Your task to perform on an android device: Search for seafood restaurants on Google Maps Image 0: 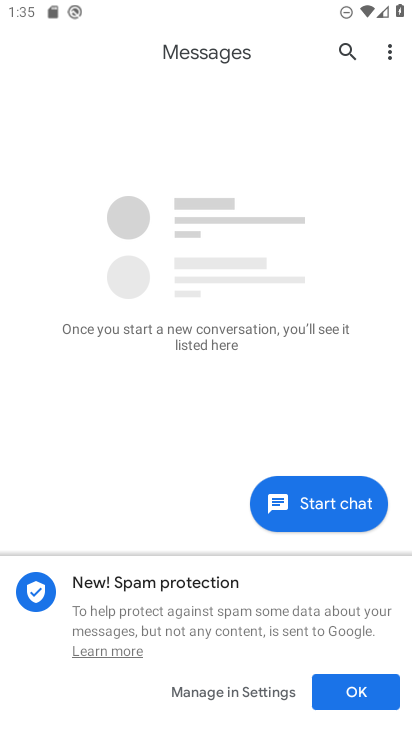
Step 0: press home button
Your task to perform on an android device: Search for seafood restaurants on Google Maps Image 1: 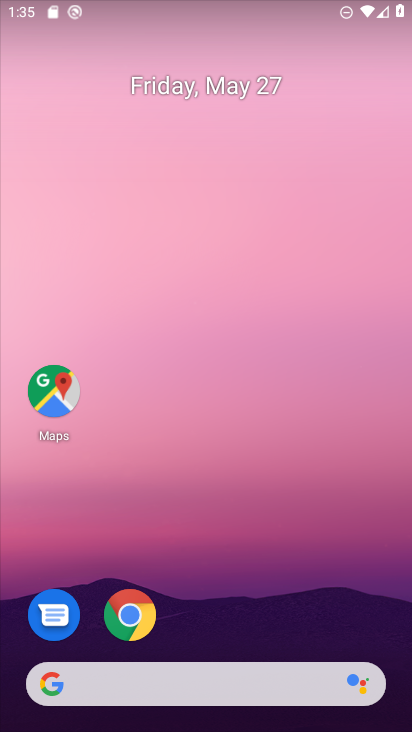
Step 1: drag from (250, 577) to (230, 128)
Your task to perform on an android device: Search for seafood restaurants on Google Maps Image 2: 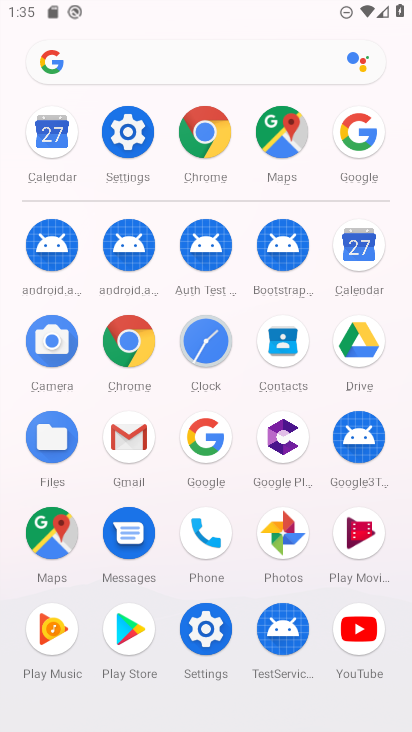
Step 2: click (52, 549)
Your task to perform on an android device: Search for seafood restaurants on Google Maps Image 3: 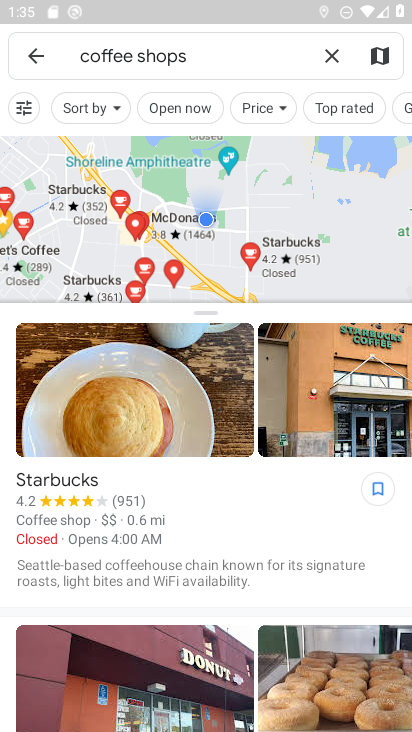
Step 3: click (324, 59)
Your task to perform on an android device: Search for seafood restaurants on Google Maps Image 4: 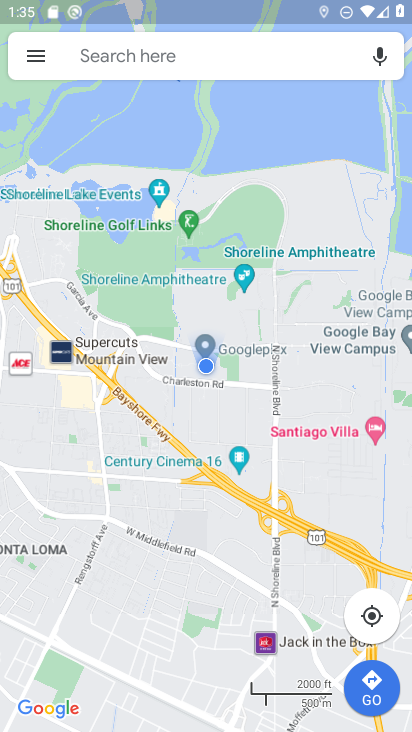
Step 4: click (229, 57)
Your task to perform on an android device: Search for seafood restaurants on Google Maps Image 5: 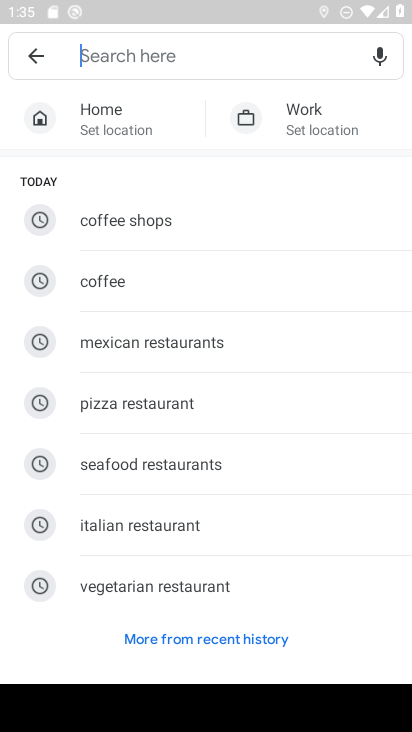
Step 5: type "seafood restaurants  "
Your task to perform on an android device: Search for seafood restaurants on Google Maps Image 6: 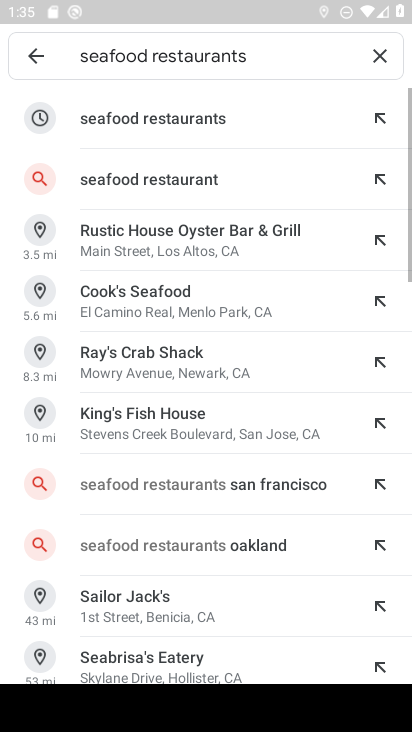
Step 6: click (209, 119)
Your task to perform on an android device: Search for seafood restaurants on Google Maps Image 7: 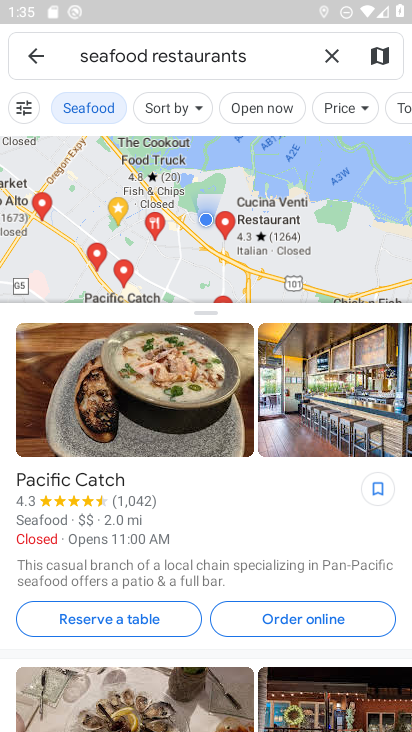
Step 7: task complete